Your task to perform on an android device: add a contact in the contacts app Image 0: 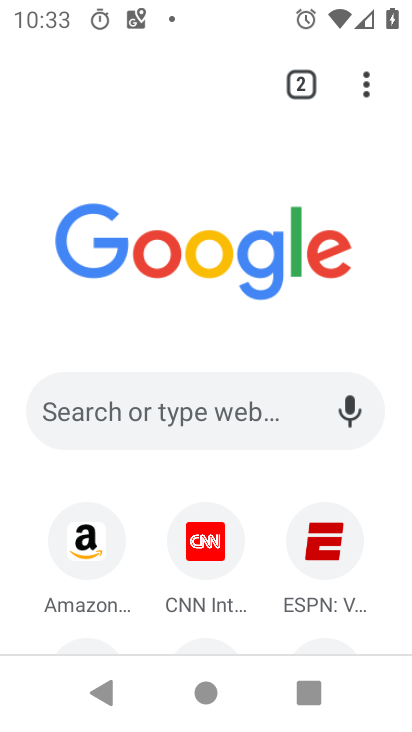
Step 0: press home button
Your task to perform on an android device: add a contact in the contacts app Image 1: 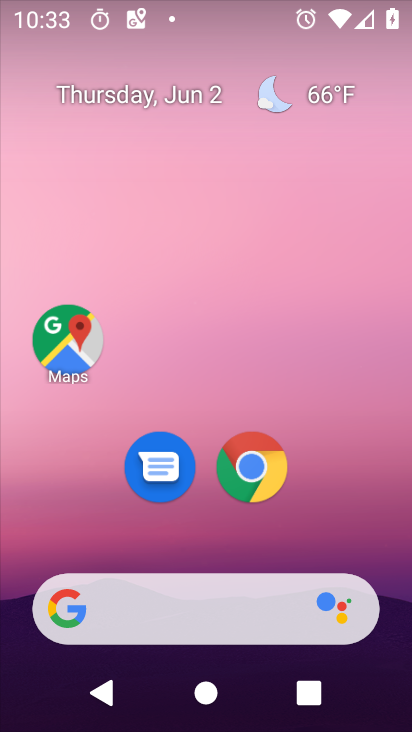
Step 1: drag from (26, 606) to (307, 140)
Your task to perform on an android device: add a contact in the contacts app Image 2: 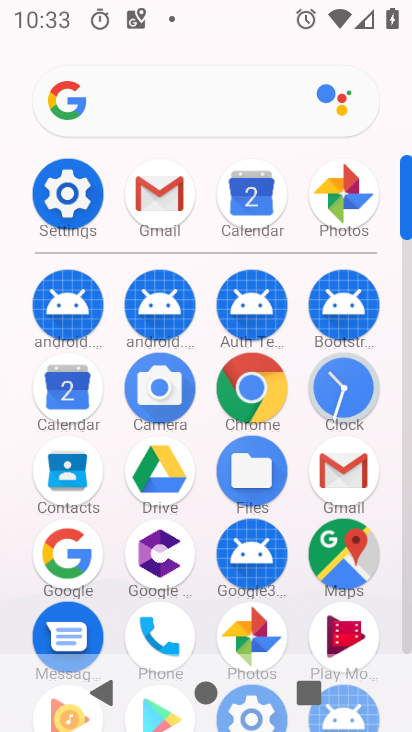
Step 2: click (141, 628)
Your task to perform on an android device: add a contact in the contacts app Image 3: 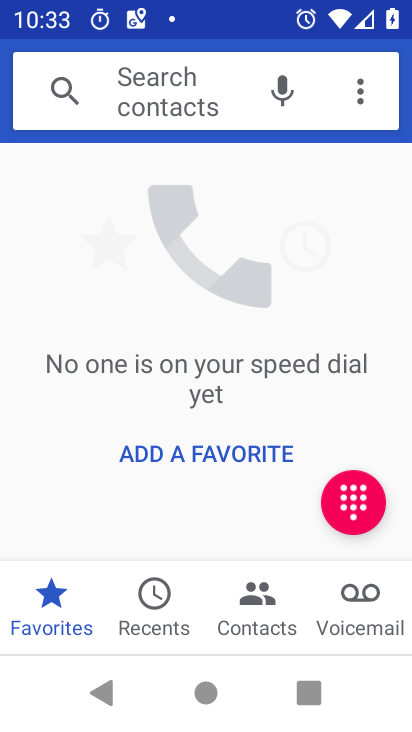
Step 3: click (266, 604)
Your task to perform on an android device: add a contact in the contacts app Image 4: 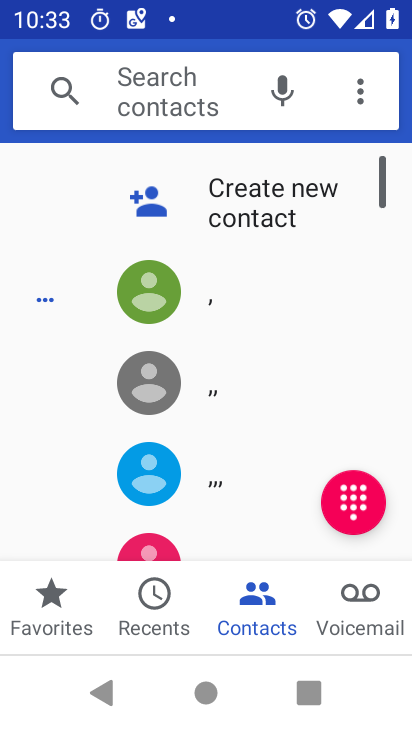
Step 4: click (250, 214)
Your task to perform on an android device: add a contact in the contacts app Image 5: 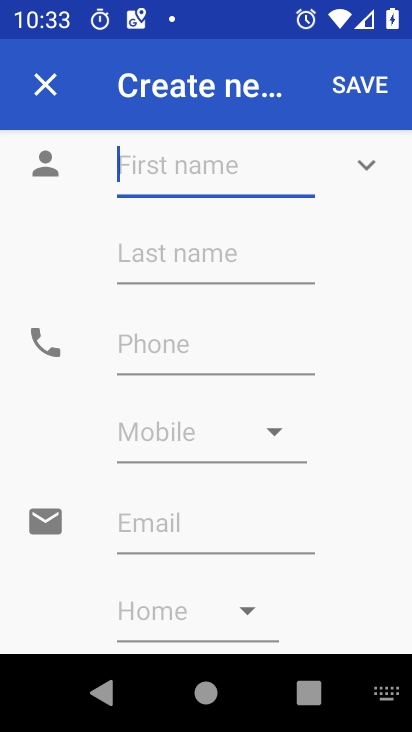
Step 5: click (237, 182)
Your task to perform on an android device: add a contact in the contacts app Image 6: 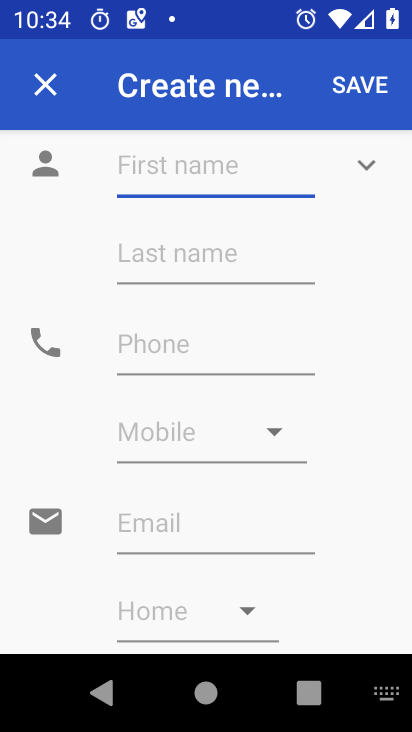
Step 6: type "bgfvcd"
Your task to perform on an android device: add a contact in the contacts app Image 7: 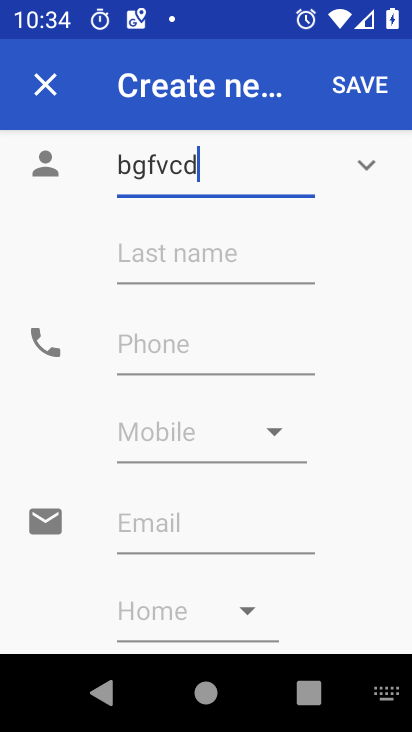
Step 7: type ""
Your task to perform on an android device: add a contact in the contacts app Image 8: 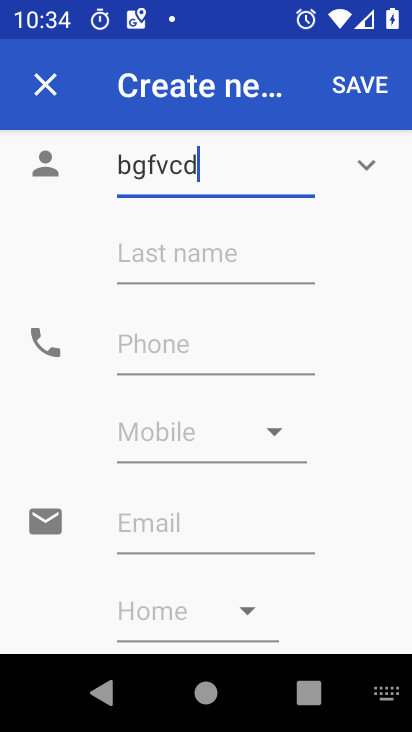
Step 8: click (362, 88)
Your task to perform on an android device: add a contact in the contacts app Image 9: 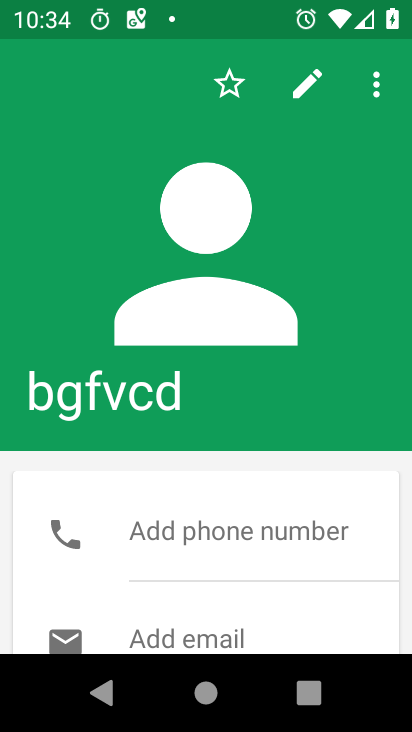
Step 9: task complete